Your task to perform on an android device: turn on wifi Image 0: 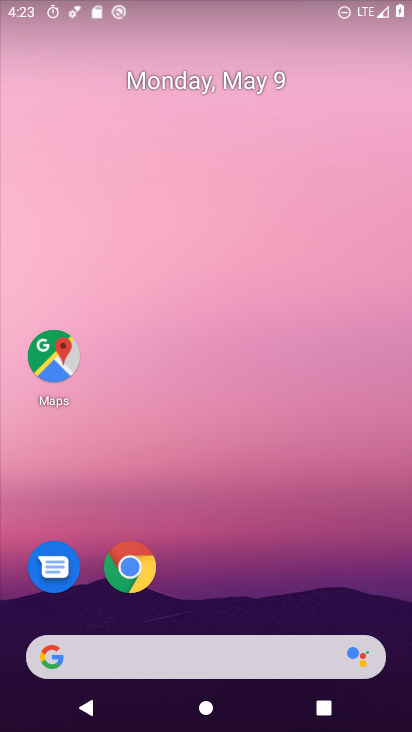
Step 0: drag from (256, 509) to (201, 166)
Your task to perform on an android device: turn on wifi Image 1: 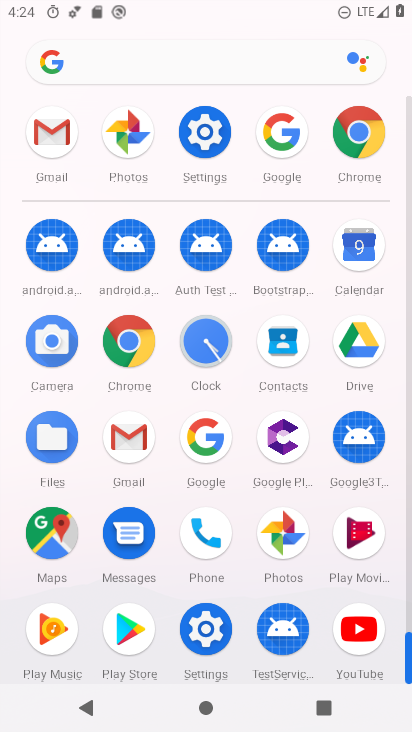
Step 1: click (199, 138)
Your task to perform on an android device: turn on wifi Image 2: 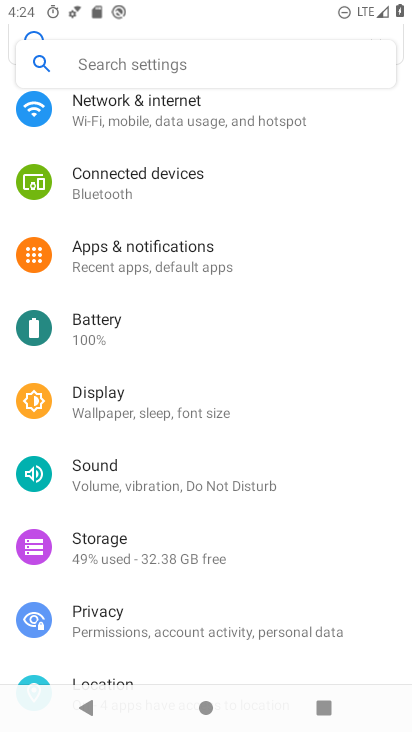
Step 2: drag from (287, 227) to (277, 438)
Your task to perform on an android device: turn on wifi Image 3: 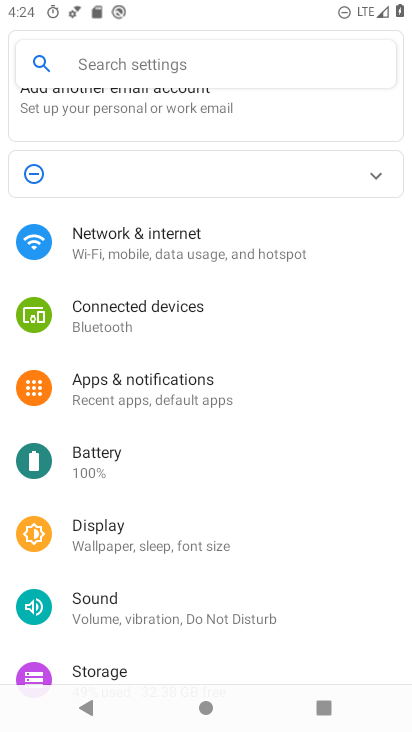
Step 3: click (199, 253)
Your task to perform on an android device: turn on wifi Image 4: 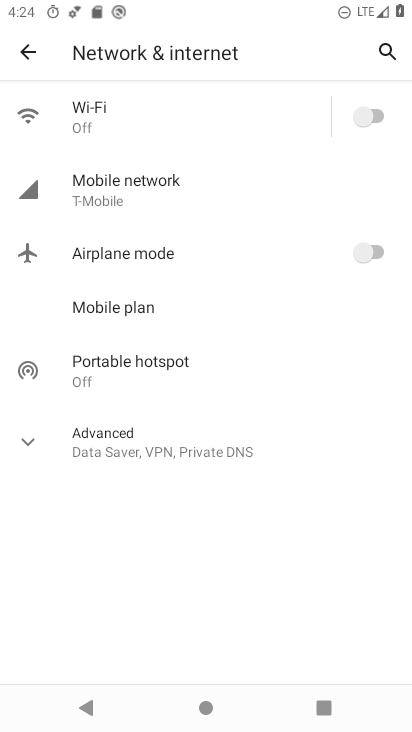
Step 4: click (378, 113)
Your task to perform on an android device: turn on wifi Image 5: 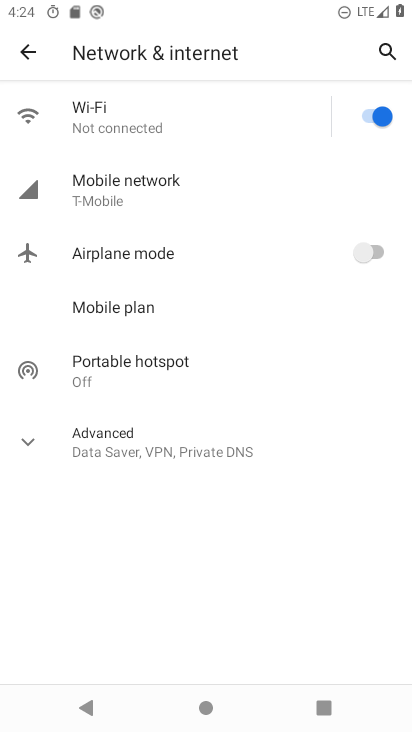
Step 5: task complete